Your task to perform on an android device: change the clock display to show seconds Image 0: 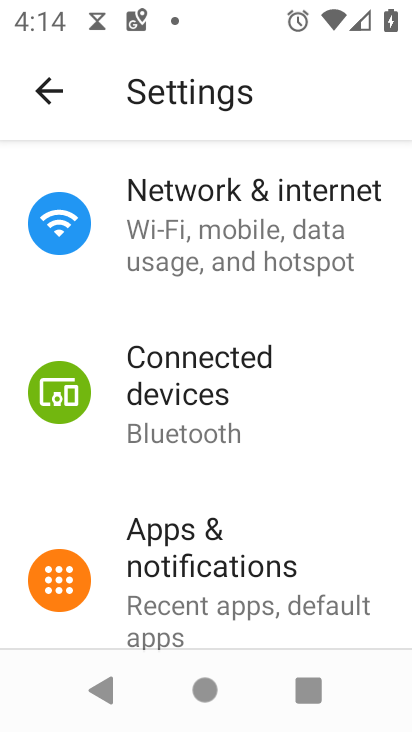
Step 0: press home button
Your task to perform on an android device: change the clock display to show seconds Image 1: 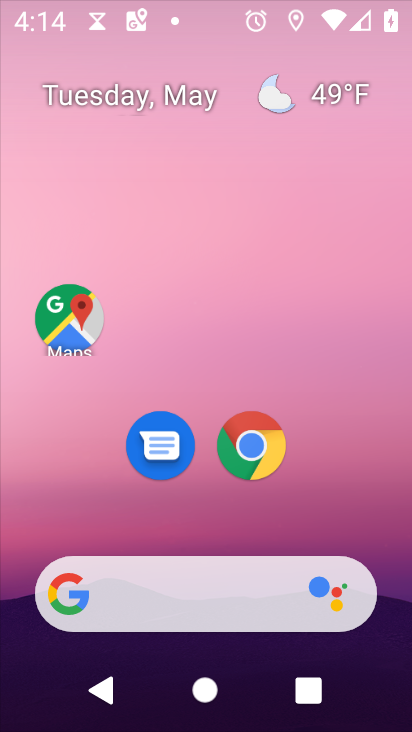
Step 1: drag from (241, 584) to (274, 49)
Your task to perform on an android device: change the clock display to show seconds Image 2: 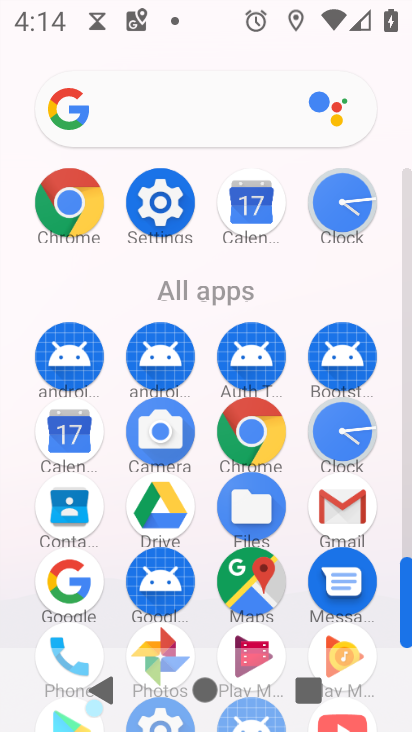
Step 2: click (348, 439)
Your task to perform on an android device: change the clock display to show seconds Image 3: 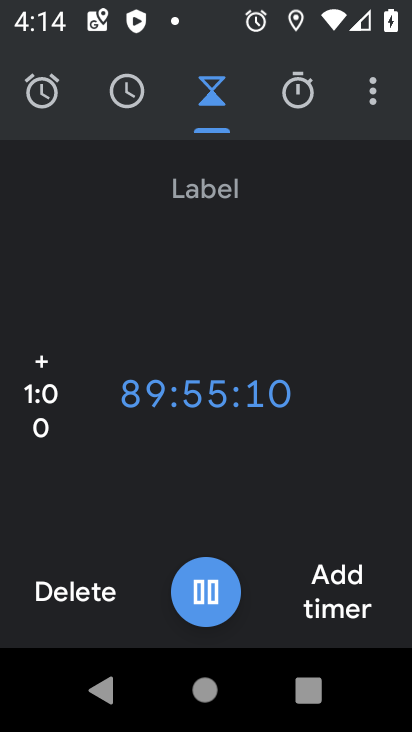
Step 3: click (380, 97)
Your task to perform on an android device: change the clock display to show seconds Image 4: 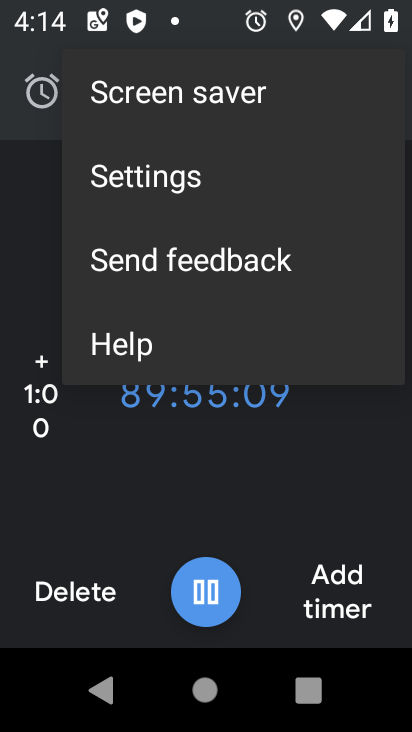
Step 4: click (231, 168)
Your task to perform on an android device: change the clock display to show seconds Image 5: 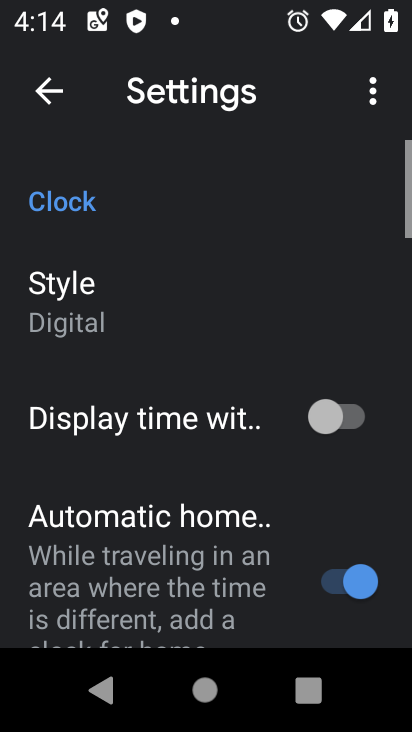
Step 5: click (347, 419)
Your task to perform on an android device: change the clock display to show seconds Image 6: 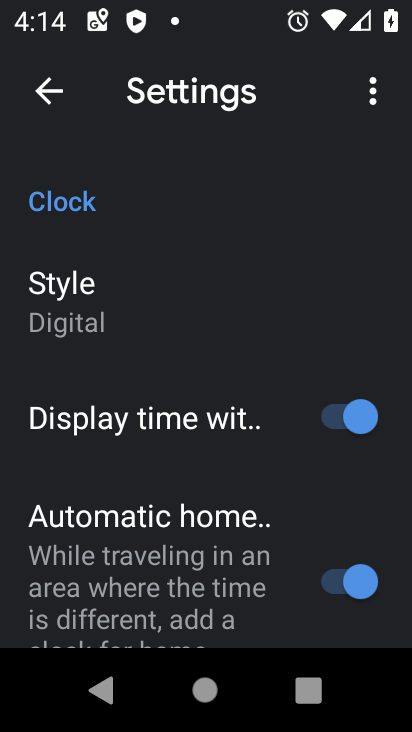
Step 6: task complete